Your task to perform on an android device: What's on my calendar today? Image 0: 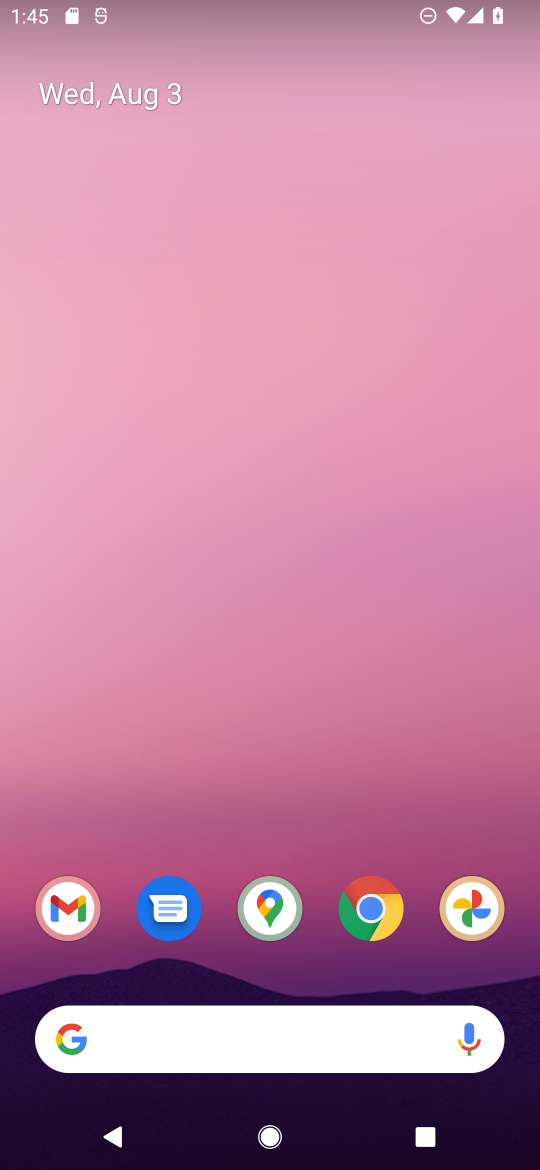
Step 0: drag from (224, 862) to (322, 84)
Your task to perform on an android device: What's on my calendar today? Image 1: 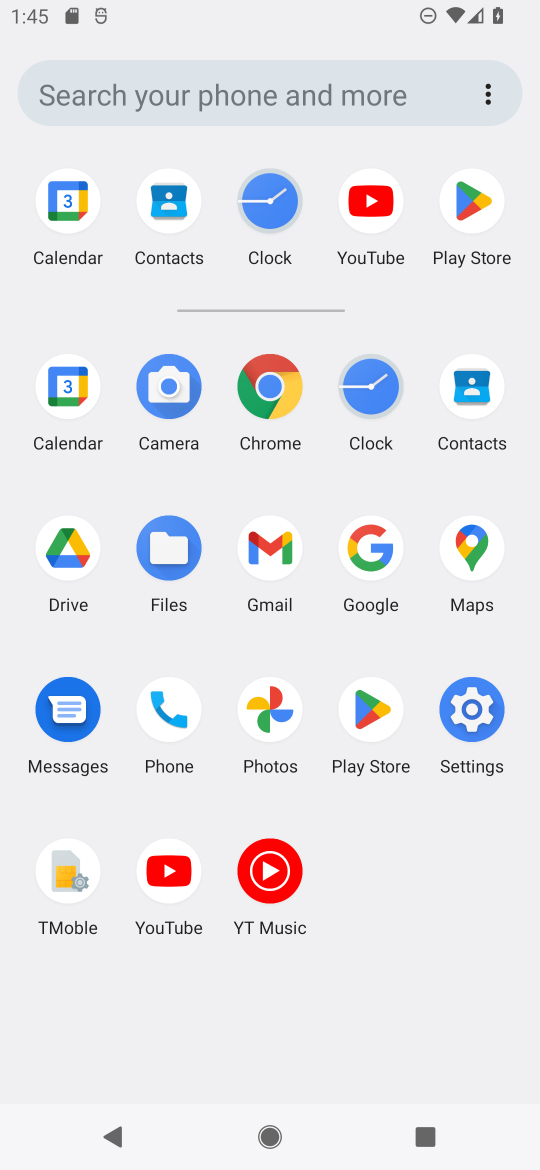
Step 1: click (88, 439)
Your task to perform on an android device: What's on my calendar today? Image 2: 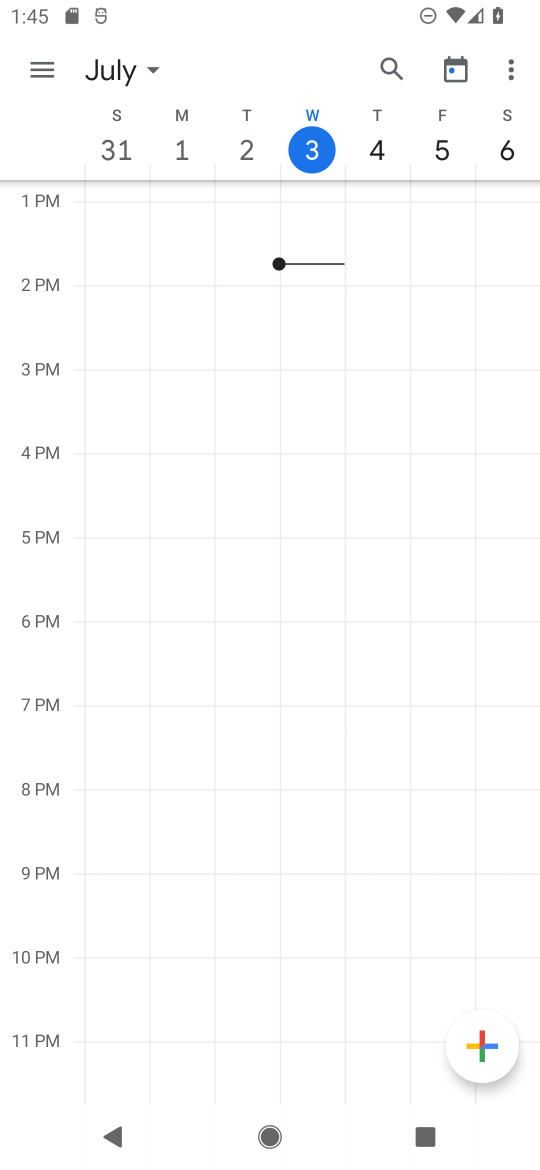
Step 2: click (57, 70)
Your task to perform on an android device: What's on my calendar today? Image 3: 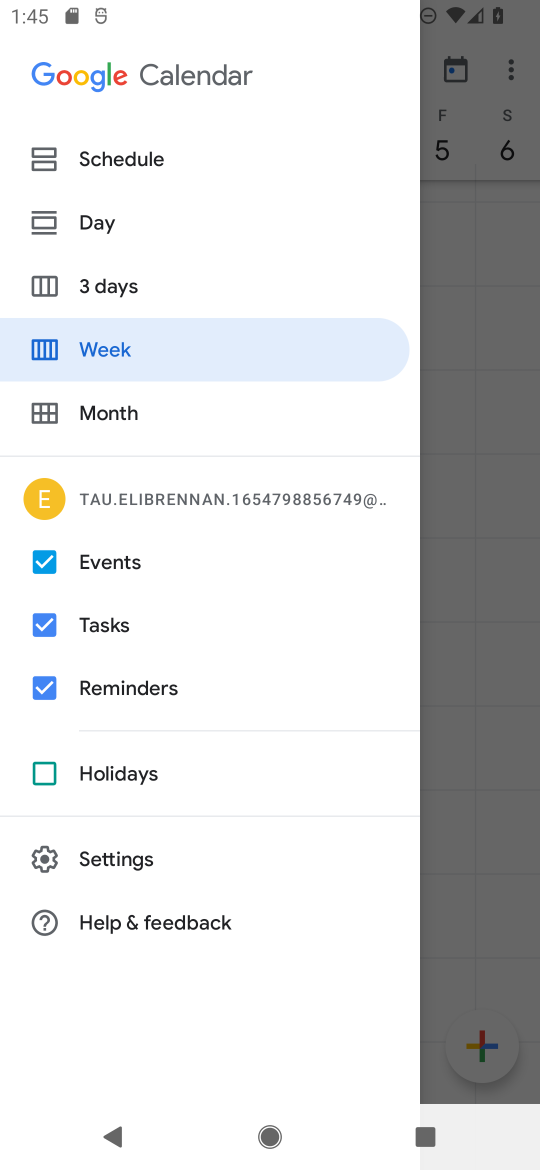
Step 3: click (145, 159)
Your task to perform on an android device: What's on my calendar today? Image 4: 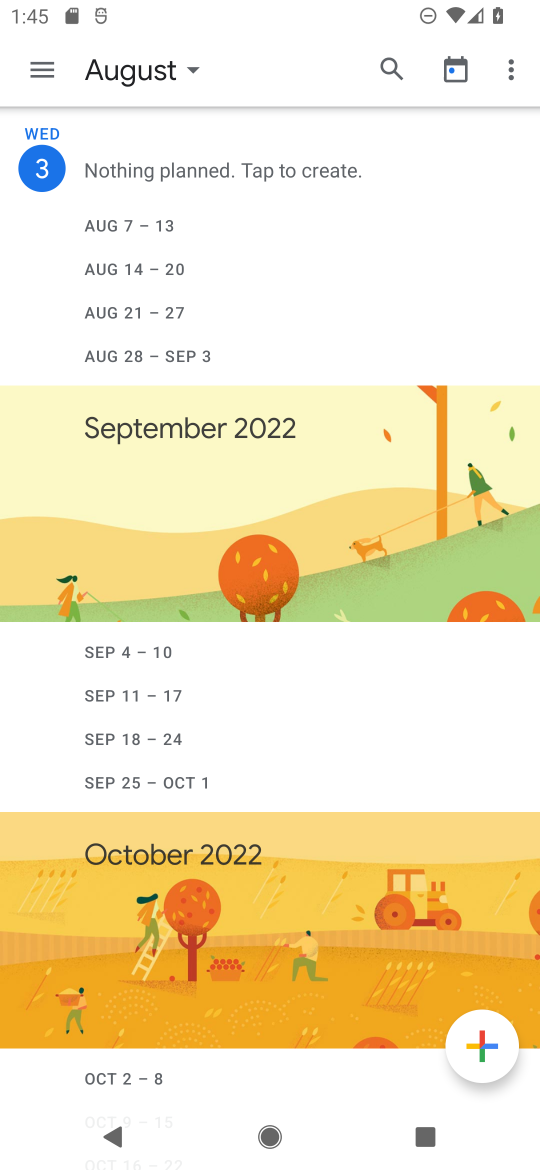
Step 4: click (132, 69)
Your task to perform on an android device: What's on my calendar today? Image 5: 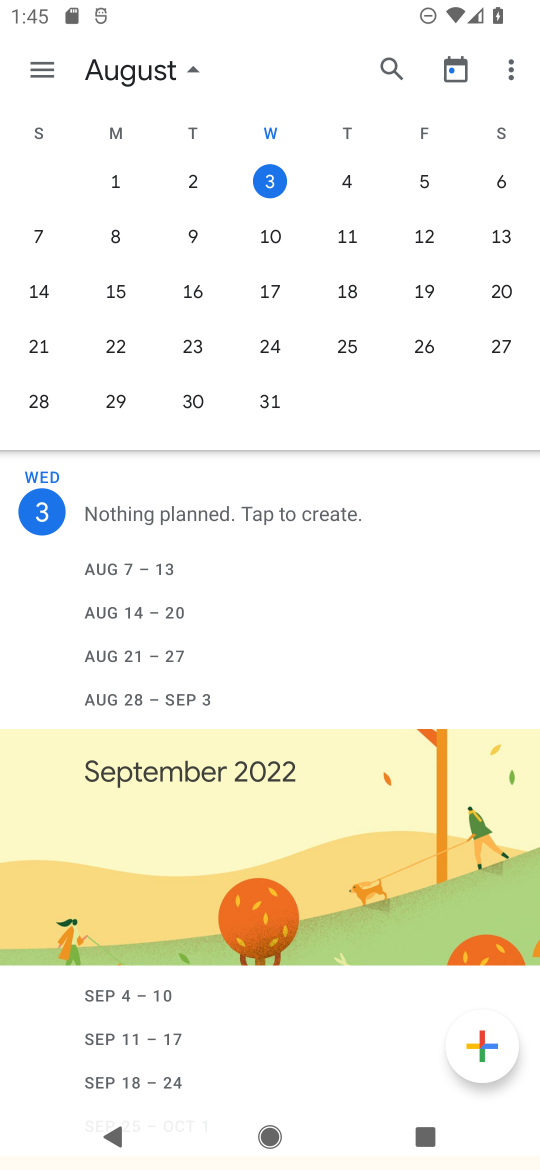
Step 5: task complete